Your task to perform on an android device: change text size in settings app Image 0: 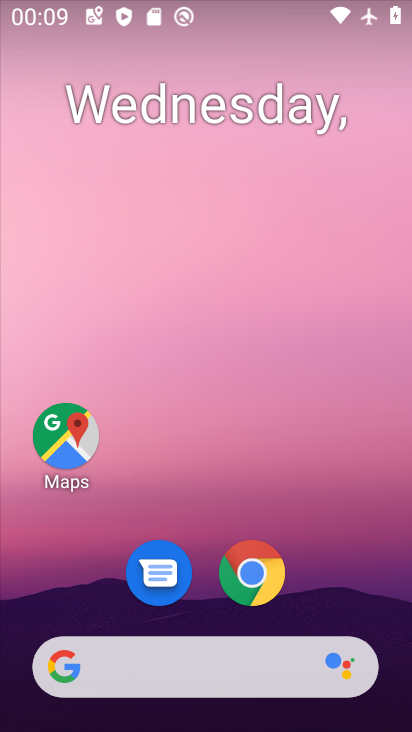
Step 0: drag from (331, 512) to (318, 310)
Your task to perform on an android device: change text size in settings app Image 1: 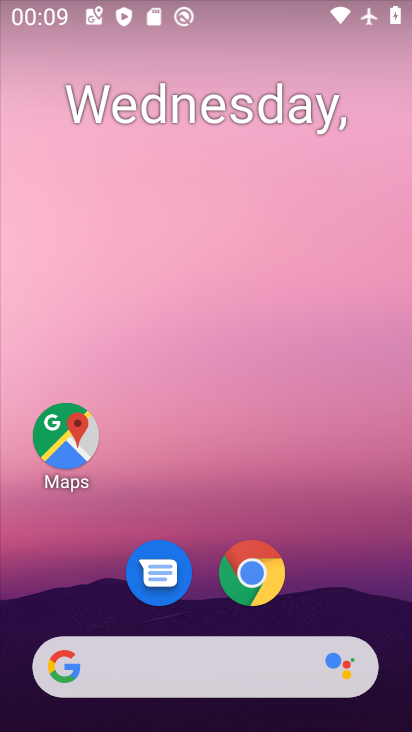
Step 1: drag from (341, 532) to (304, 260)
Your task to perform on an android device: change text size in settings app Image 2: 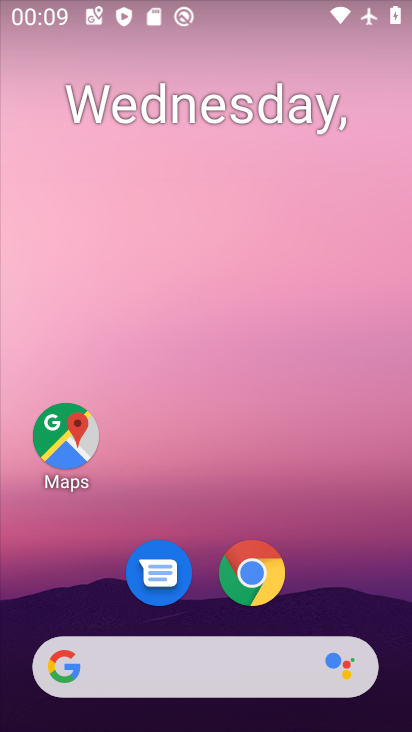
Step 2: drag from (306, 600) to (298, 374)
Your task to perform on an android device: change text size in settings app Image 3: 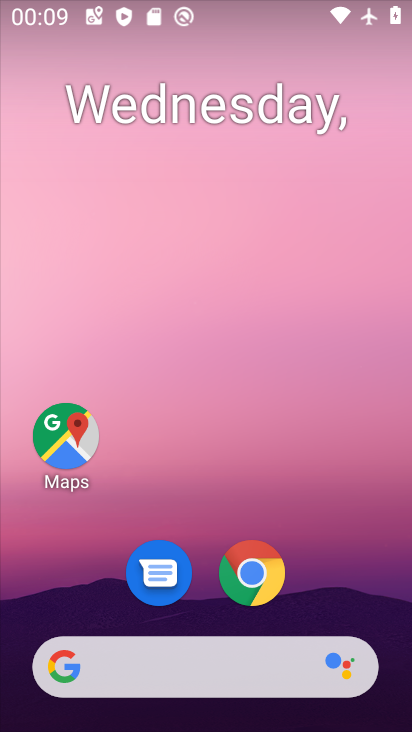
Step 3: drag from (314, 602) to (307, 273)
Your task to perform on an android device: change text size in settings app Image 4: 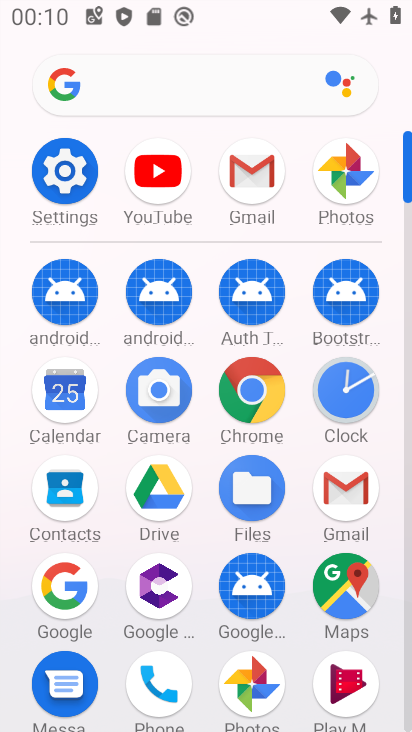
Step 4: click (259, 385)
Your task to perform on an android device: change text size in settings app Image 5: 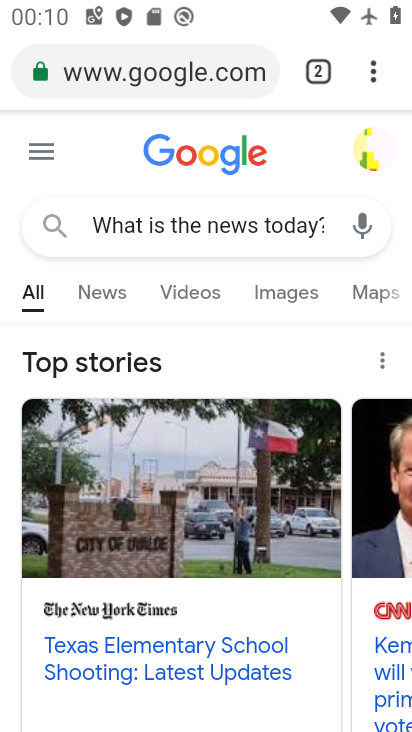
Step 5: click (379, 76)
Your task to perform on an android device: change text size in settings app Image 6: 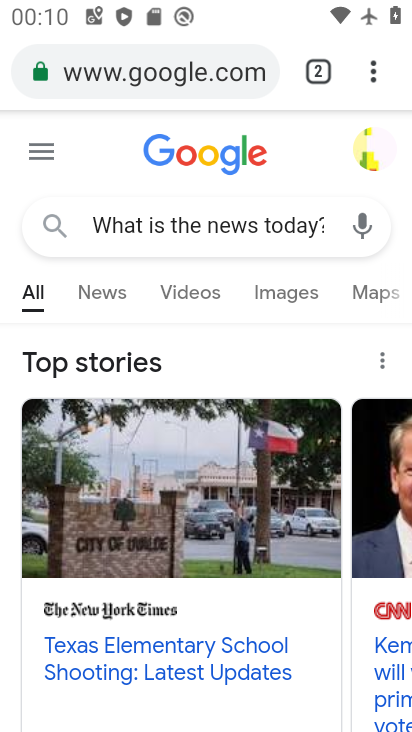
Step 6: click (379, 76)
Your task to perform on an android device: change text size in settings app Image 7: 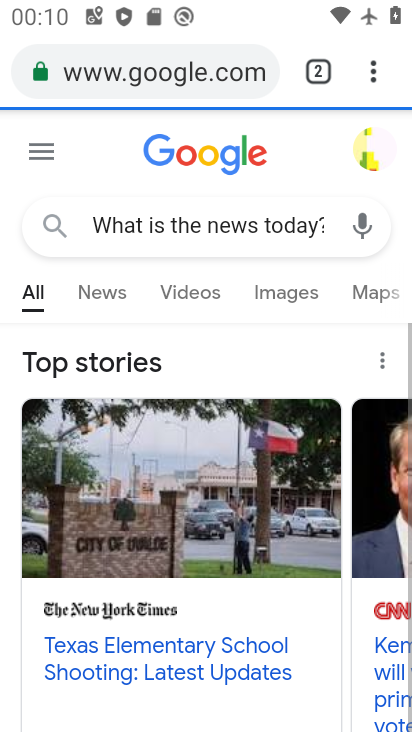
Step 7: click (368, 67)
Your task to perform on an android device: change text size in settings app Image 8: 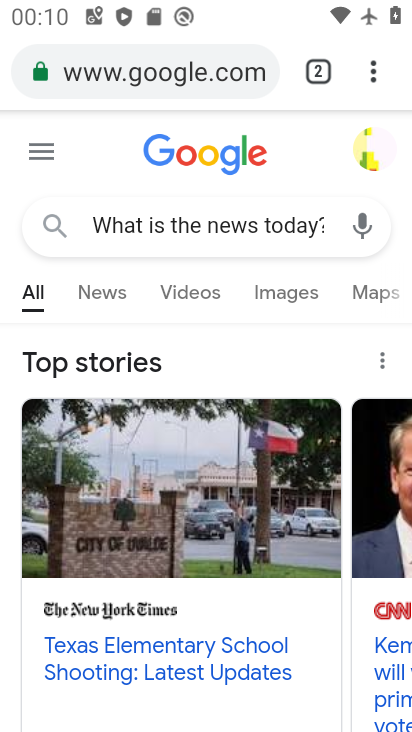
Step 8: click (370, 66)
Your task to perform on an android device: change text size in settings app Image 9: 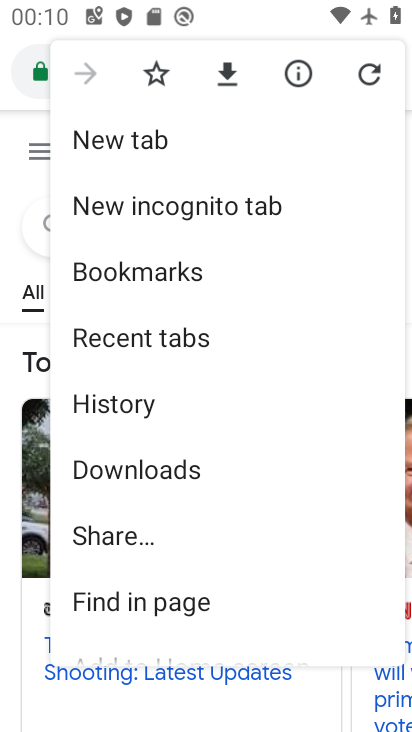
Step 9: drag from (219, 552) to (265, 206)
Your task to perform on an android device: change text size in settings app Image 10: 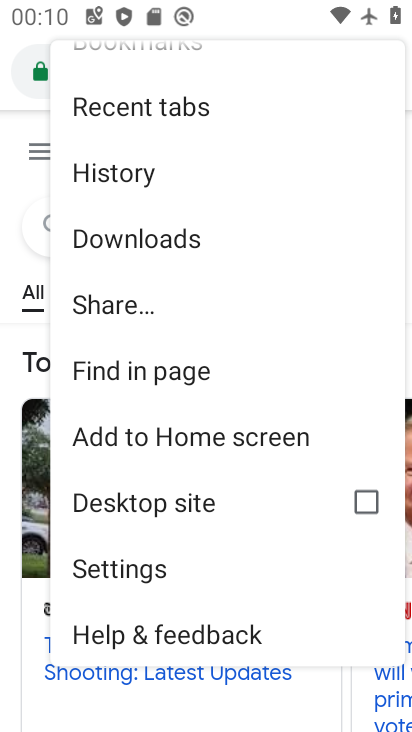
Step 10: press home button
Your task to perform on an android device: change text size in settings app Image 11: 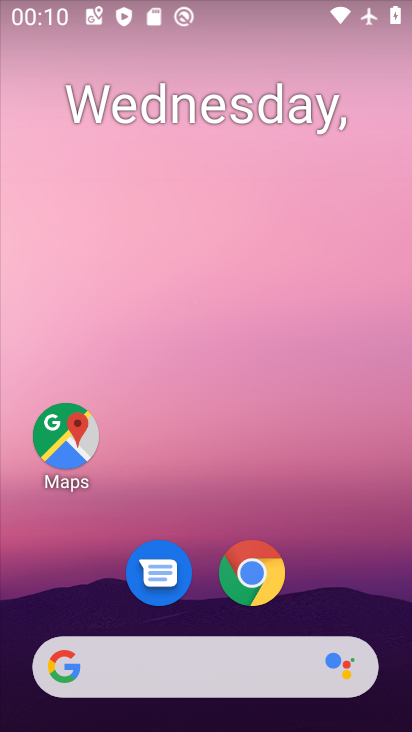
Step 11: drag from (334, 575) to (315, 196)
Your task to perform on an android device: change text size in settings app Image 12: 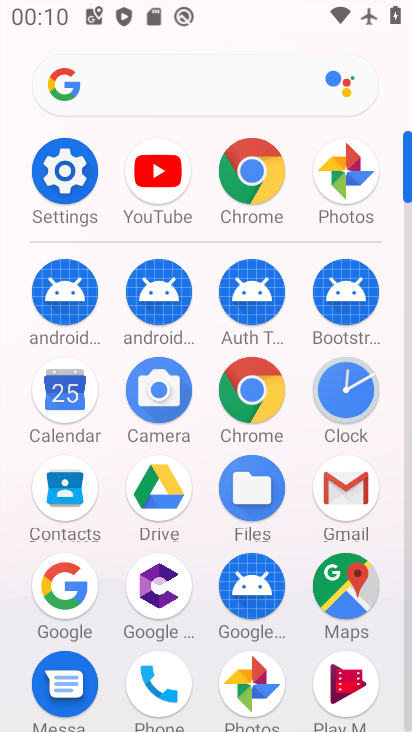
Step 12: drag from (209, 584) to (226, 303)
Your task to perform on an android device: change text size in settings app Image 13: 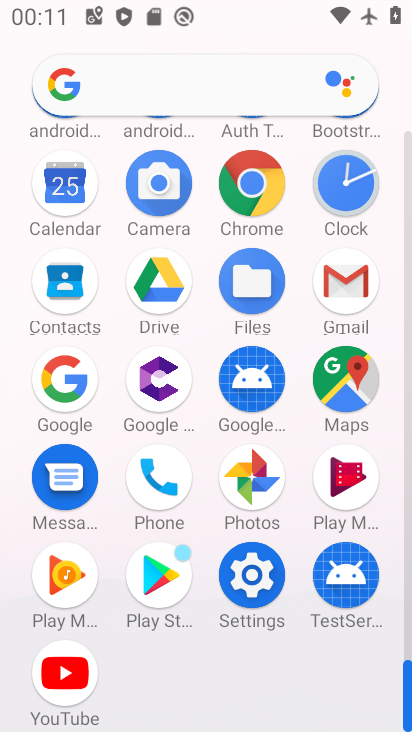
Step 13: click (260, 567)
Your task to perform on an android device: change text size in settings app Image 14: 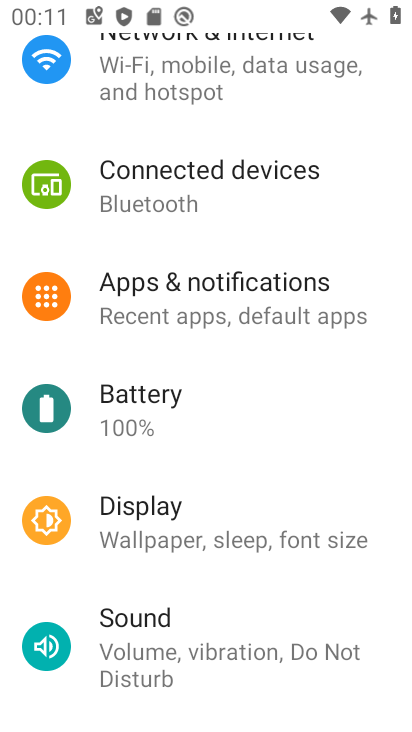
Step 14: drag from (265, 635) to (265, 191)
Your task to perform on an android device: change text size in settings app Image 15: 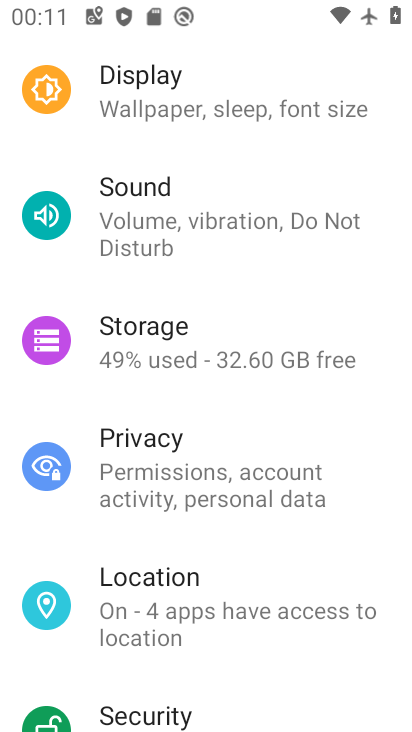
Step 15: drag from (219, 581) to (243, 193)
Your task to perform on an android device: change text size in settings app Image 16: 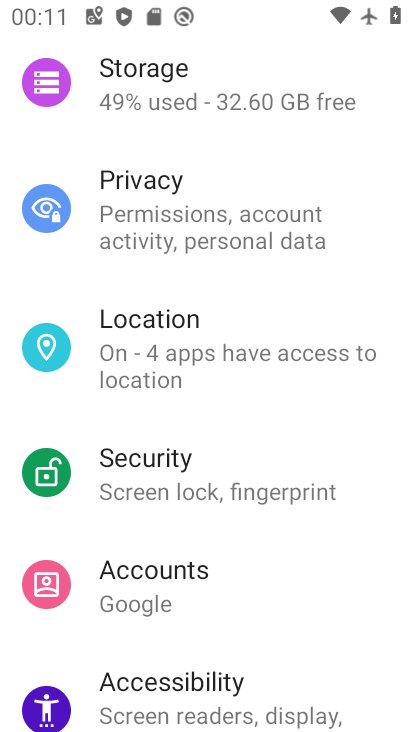
Step 16: drag from (239, 578) to (239, 211)
Your task to perform on an android device: change text size in settings app Image 17: 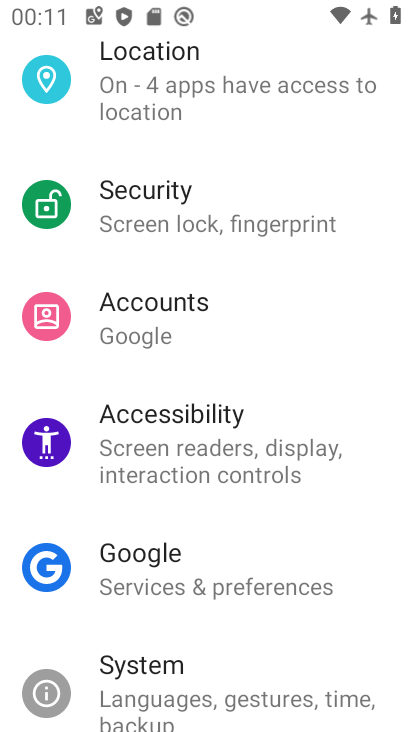
Step 17: drag from (254, 601) to (257, 217)
Your task to perform on an android device: change text size in settings app Image 18: 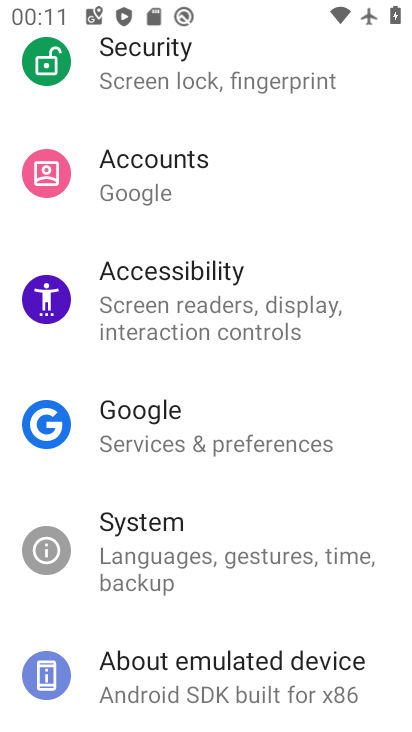
Step 18: drag from (203, 656) to (212, 341)
Your task to perform on an android device: change text size in settings app Image 19: 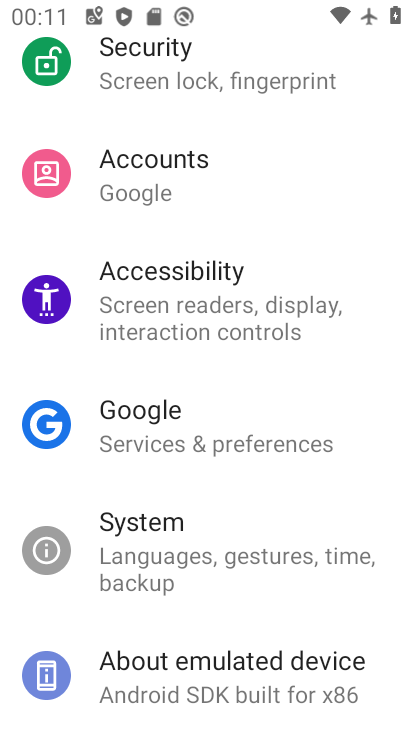
Step 19: click (199, 659)
Your task to perform on an android device: change text size in settings app Image 20: 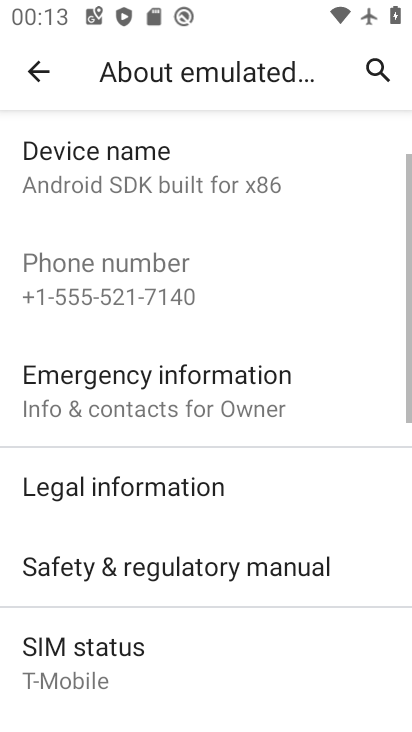
Step 20: drag from (231, 586) to (230, 298)
Your task to perform on an android device: change text size in settings app Image 21: 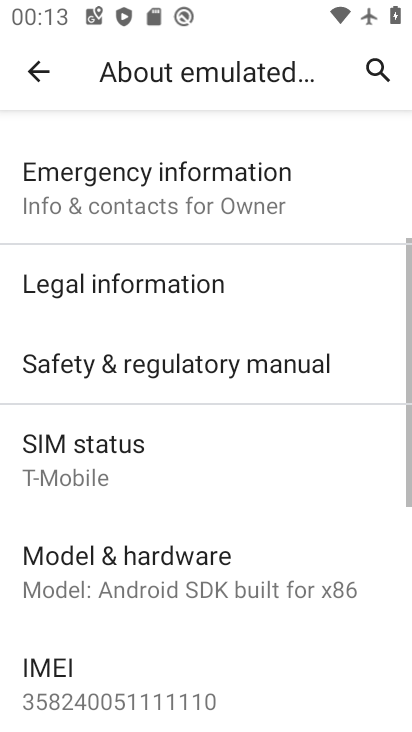
Step 21: click (40, 70)
Your task to perform on an android device: change text size in settings app Image 22: 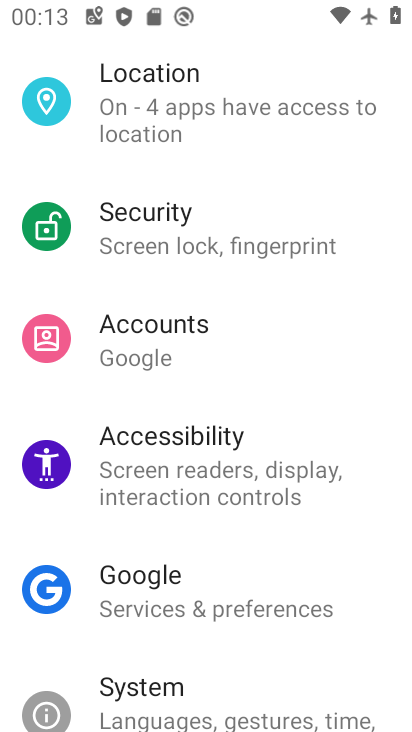
Step 22: click (194, 445)
Your task to perform on an android device: change text size in settings app Image 23: 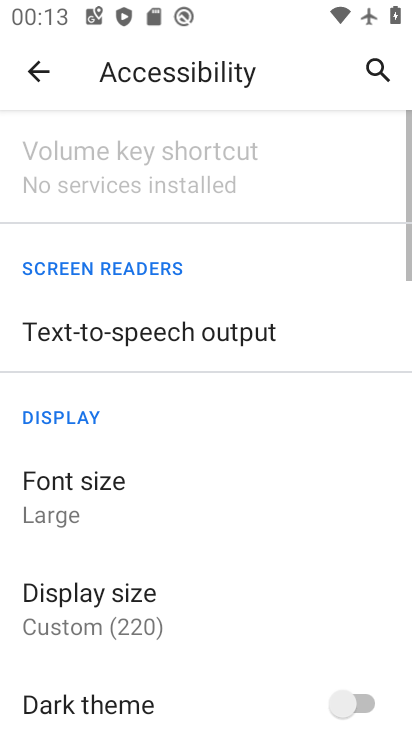
Step 23: click (148, 505)
Your task to perform on an android device: change text size in settings app Image 24: 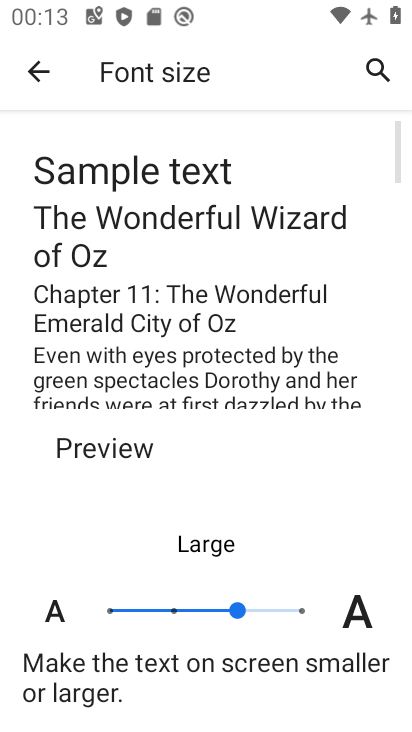
Step 24: click (167, 610)
Your task to perform on an android device: change text size in settings app Image 25: 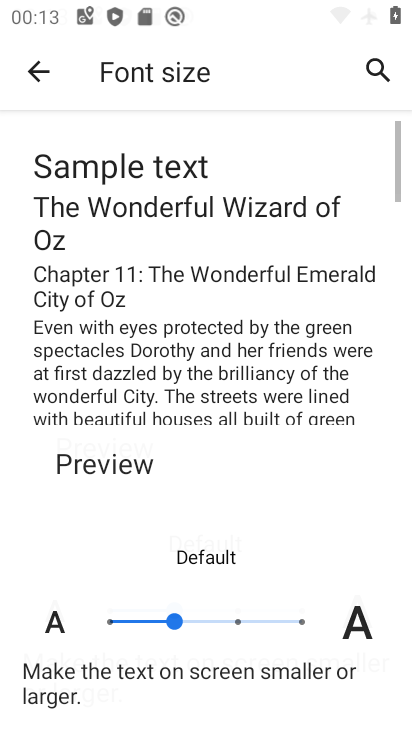
Step 25: task complete